Your task to perform on an android device: Open the stopwatch Image 0: 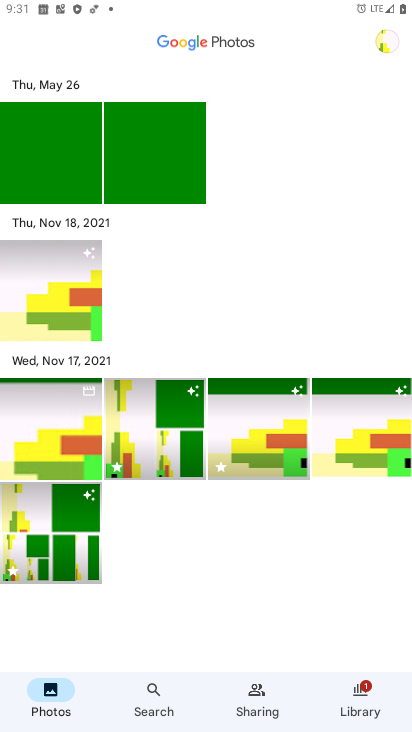
Step 0: press home button
Your task to perform on an android device: Open the stopwatch Image 1: 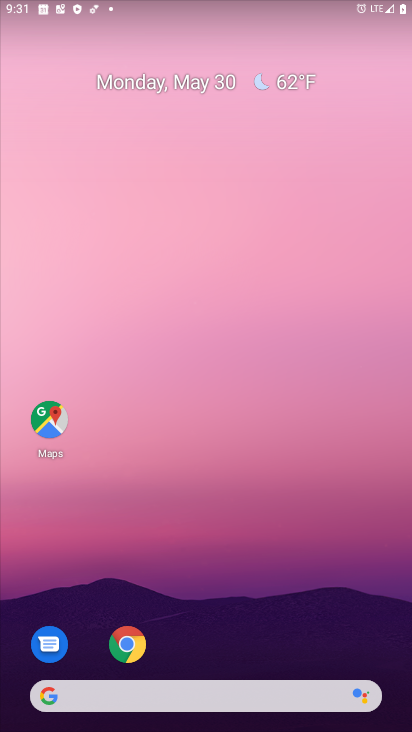
Step 1: drag from (392, 671) to (287, 168)
Your task to perform on an android device: Open the stopwatch Image 2: 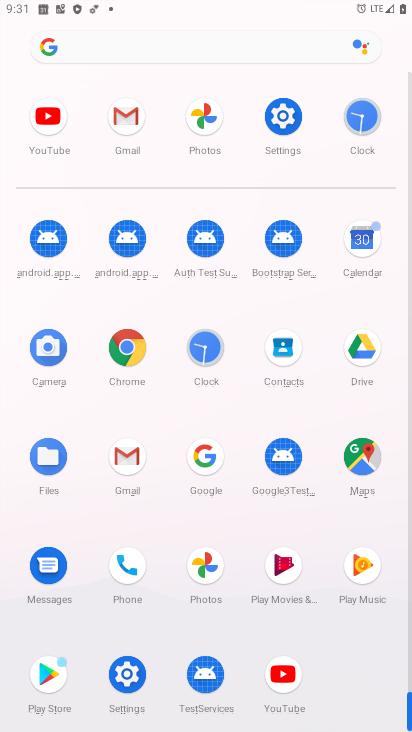
Step 2: click (204, 345)
Your task to perform on an android device: Open the stopwatch Image 3: 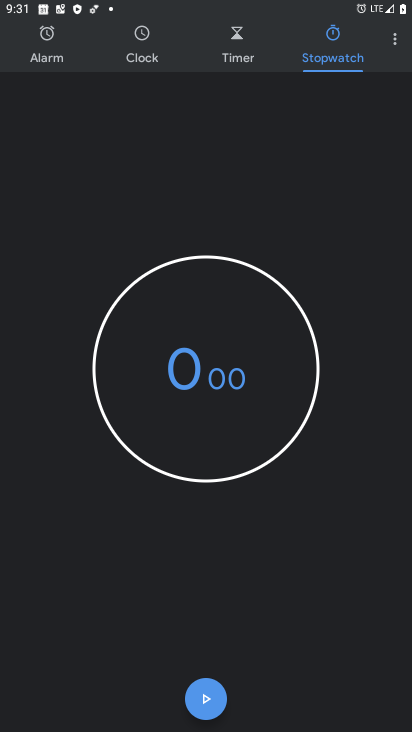
Step 3: task complete